Your task to perform on an android device: set an alarm Image 0: 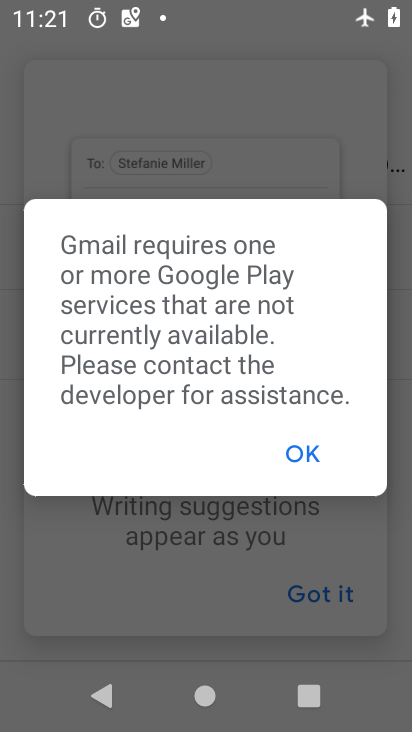
Step 0: press home button
Your task to perform on an android device: set an alarm Image 1: 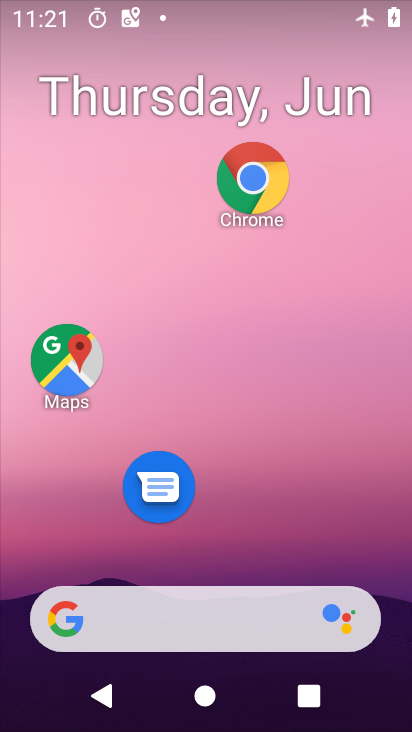
Step 1: drag from (245, 726) to (203, 92)
Your task to perform on an android device: set an alarm Image 2: 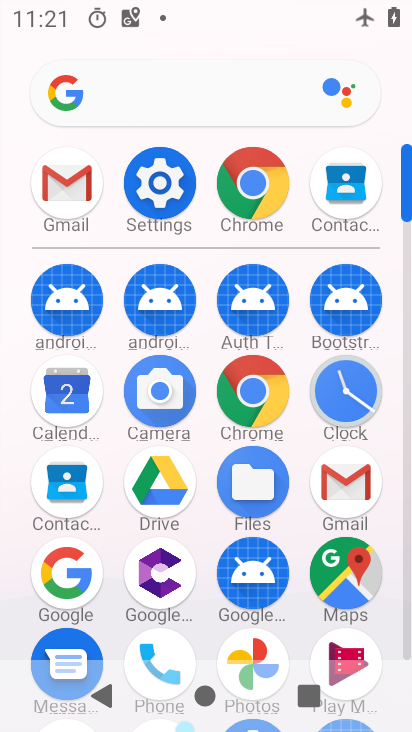
Step 2: click (360, 394)
Your task to perform on an android device: set an alarm Image 3: 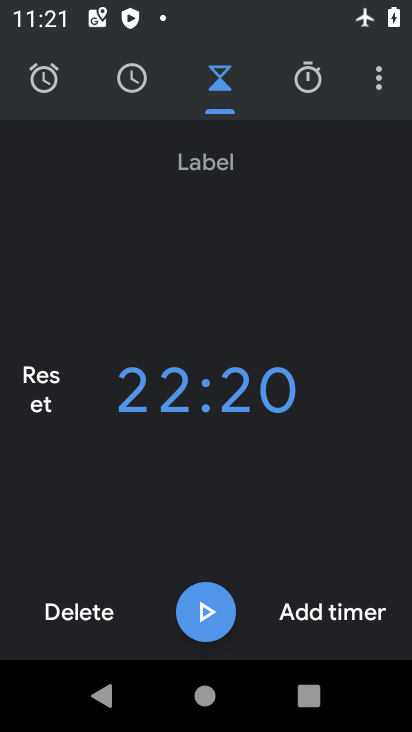
Step 3: click (46, 82)
Your task to perform on an android device: set an alarm Image 4: 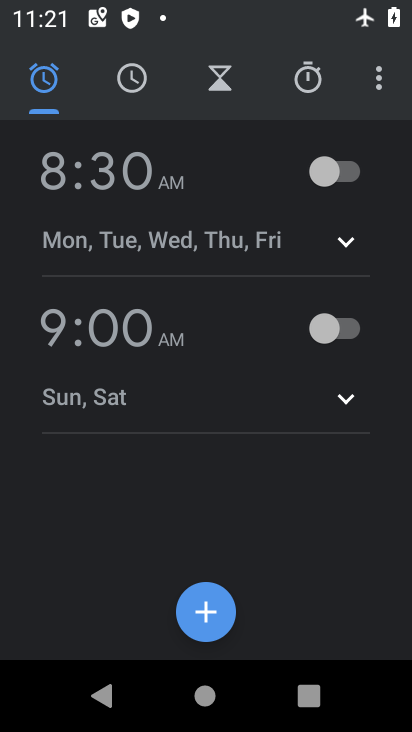
Step 4: click (209, 611)
Your task to perform on an android device: set an alarm Image 5: 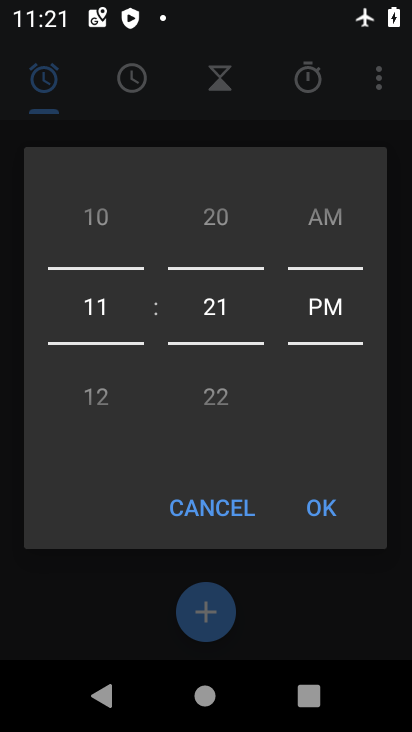
Step 5: click (219, 406)
Your task to perform on an android device: set an alarm Image 6: 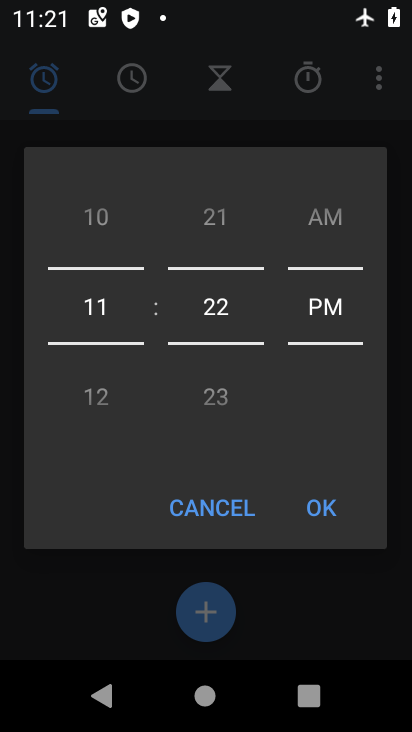
Step 6: click (101, 383)
Your task to perform on an android device: set an alarm Image 7: 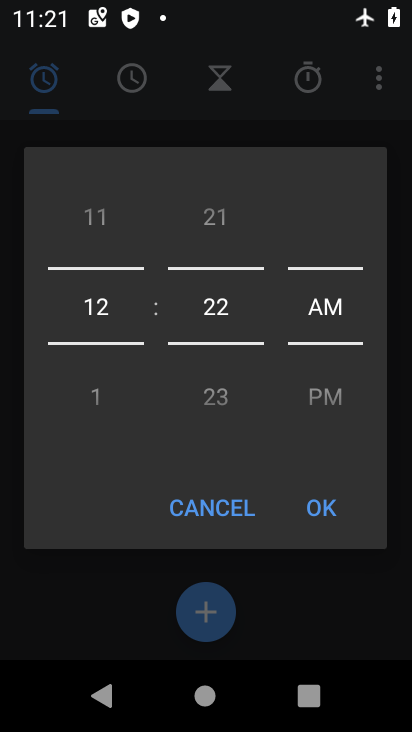
Step 7: click (324, 506)
Your task to perform on an android device: set an alarm Image 8: 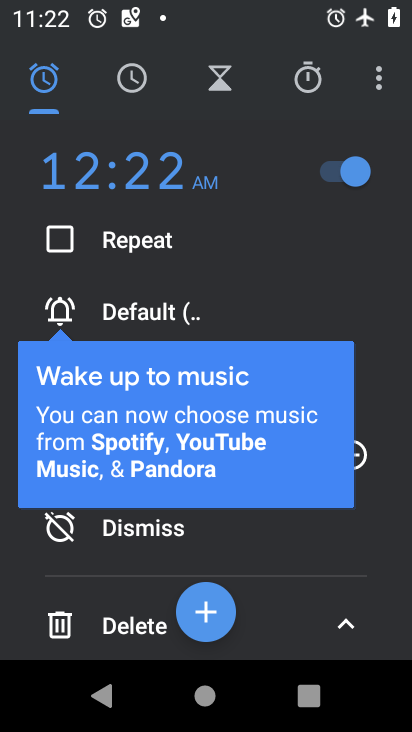
Step 8: task complete